Your task to perform on an android device: Go to Maps Image 0: 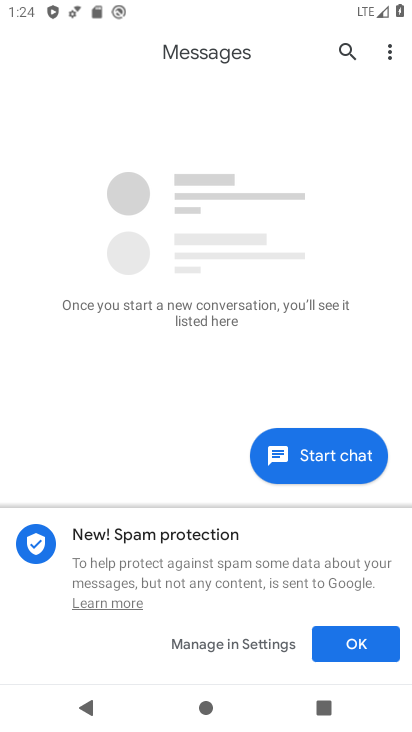
Step 0: press home button
Your task to perform on an android device: Go to Maps Image 1: 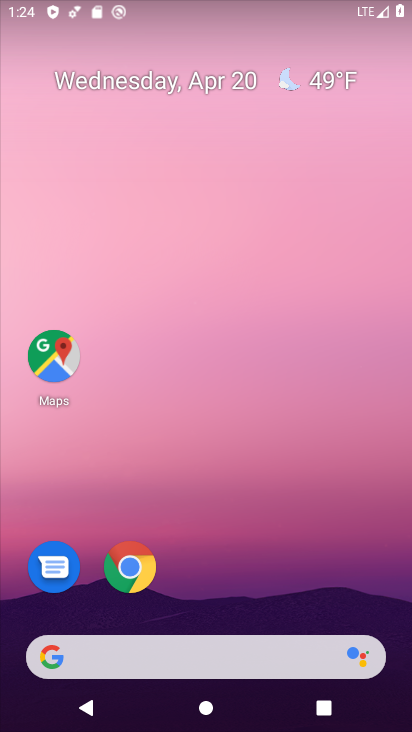
Step 1: click (60, 362)
Your task to perform on an android device: Go to Maps Image 2: 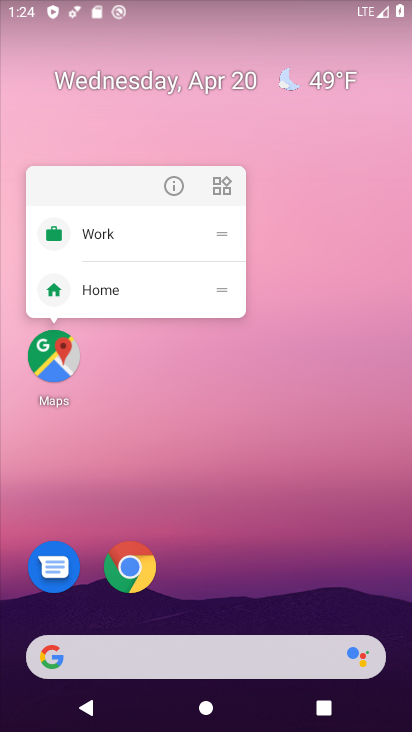
Step 2: click (68, 358)
Your task to perform on an android device: Go to Maps Image 3: 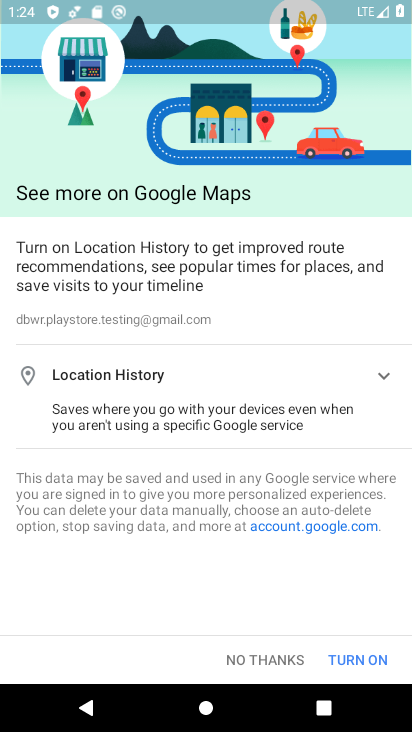
Step 3: task complete